Your task to perform on an android device: set the stopwatch Image 0: 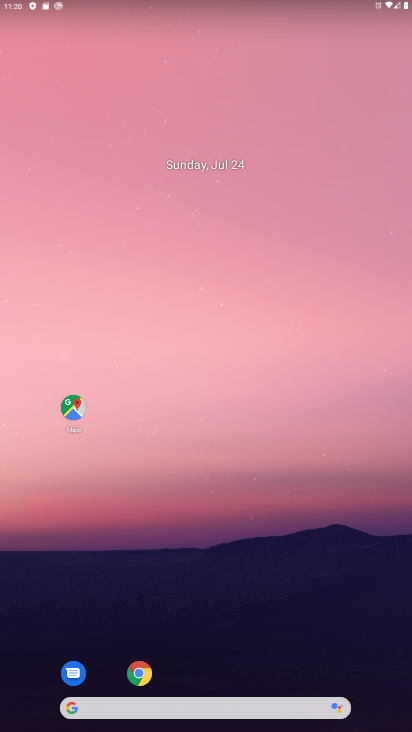
Step 0: drag from (262, 654) to (293, 64)
Your task to perform on an android device: set the stopwatch Image 1: 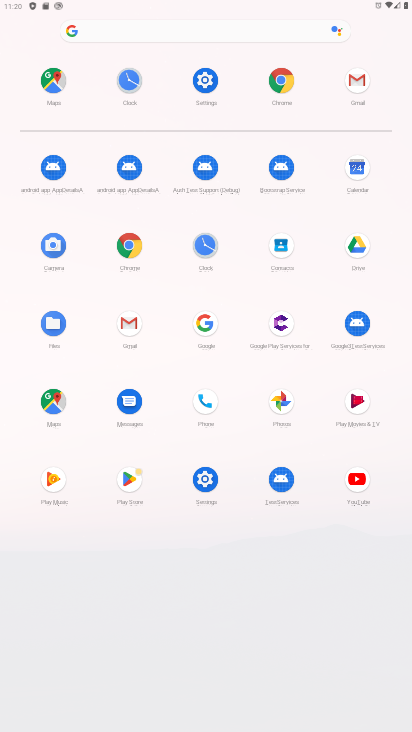
Step 1: click (210, 244)
Your task to perform on an android device: set the stopwatch Image 2: 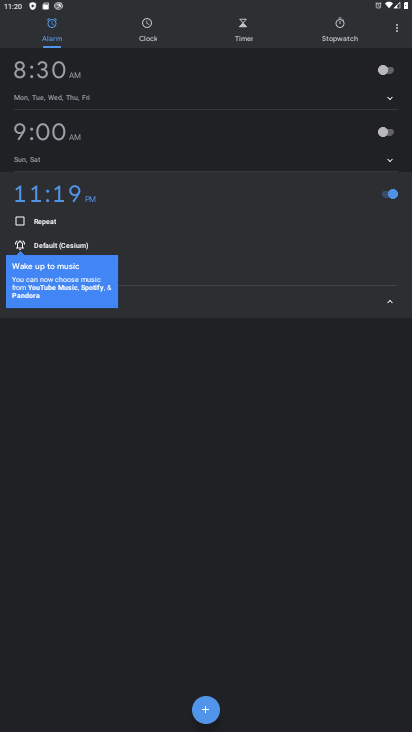
Step 2: click (212, 708)
Your task to perform on an android device: set the stopwatch Image 3: 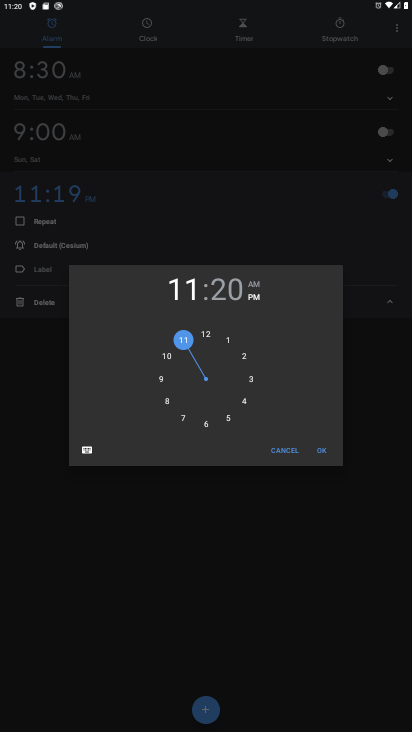
Step 3: click (321, 449)
Your task to perform on an android device: set the stopwatch Image 4: 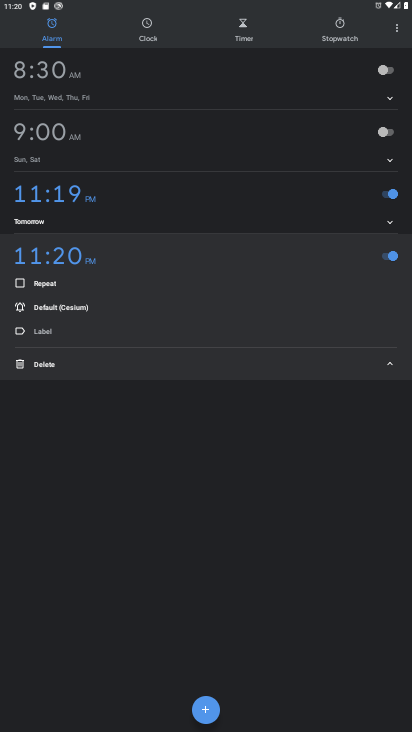
Step 4: task complete